Your task to perform on an android device: clear history in the chrome app Image 0: 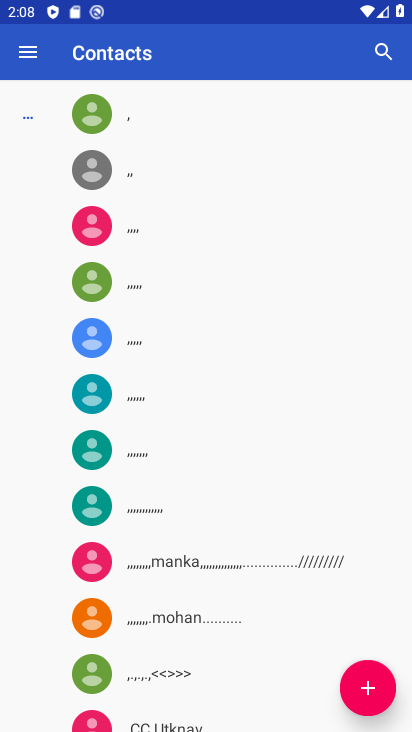
Step 0: press home button
Your task to perform on an android device: clear history in the chrome app Image 1: 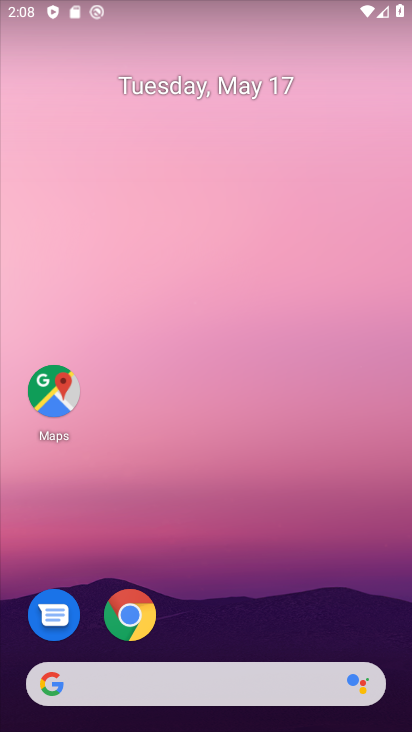
Step 1: click (135, 613)
Your task to perform on an android device: clear history in the chrome app Image 2: 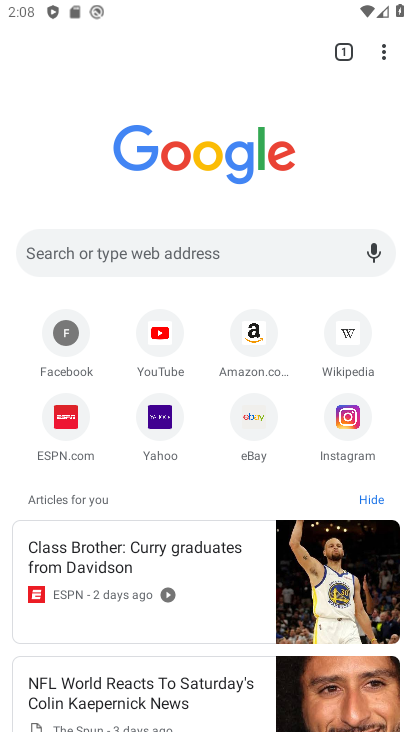
Step 2: click (383, 56)
Your task to perform on an android device: clear history in the chrome app Image 3: 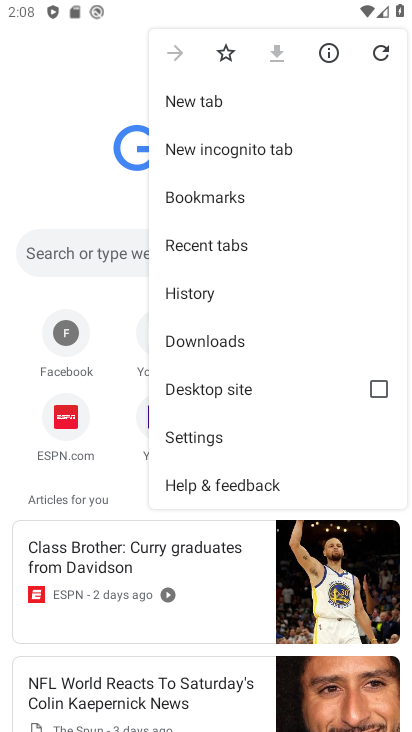
Step 3: click (190, 294)
Your task to perform on an android device: clear history in the chrome app Image 4: 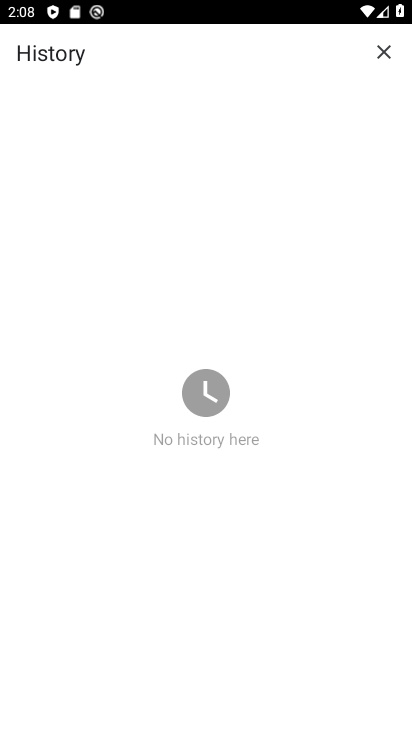
Step 4: task complete